Your task to perform on an android device: turn on airplane mode Image 0: 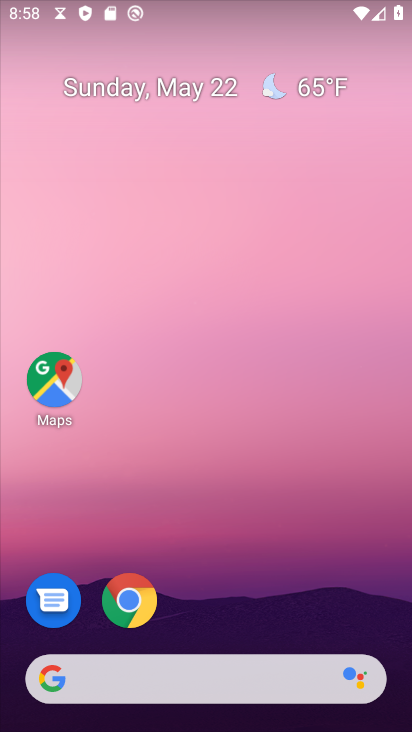
Step 0: drag from (236, 623) to (217, 214)
Your task to perform on an android device: turn on airplane mode Image 1: 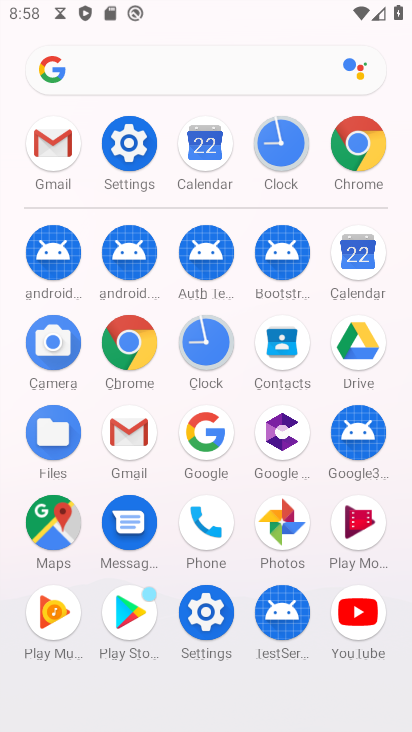
Step 1: click (129, 154)
Your task to perform on an android device: turn on airplane mode Image 2: 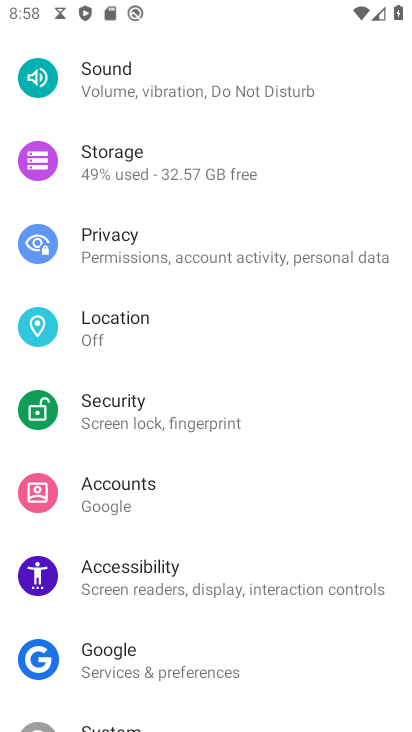
Step 2: drag from (247, 206) to (227, 538)
Your task to perform on an android device: turn on airplane mode Image 3: 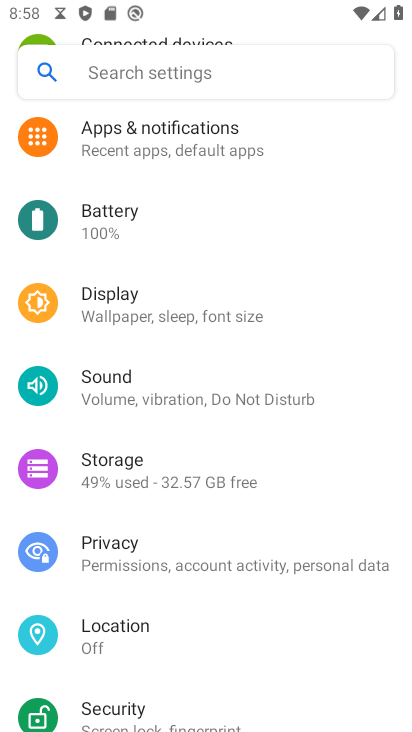
Step 3: drag from (199, 244) to (228, 525)
Your task to perform on an android device: turn on airplane mode Image 4: 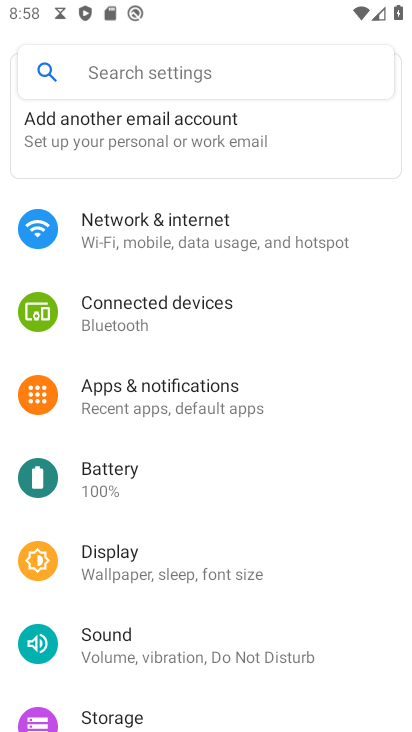
Step 4: click (144, 232)
Your task to perform on an android device: turn on airplane mode Image 5: 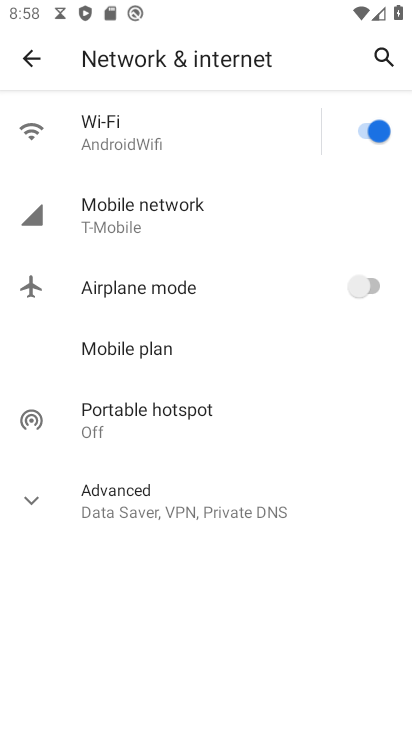
Step 5: click (375, 284)
Your task to perform on an android device: turn on airplane mode Image 6: 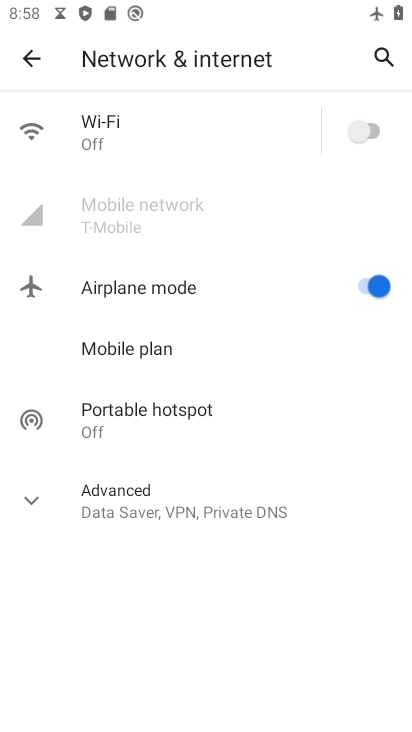
Step 6: task complete